Your task to perform on an android device: Open calendar and show me the third week of next month Image 0: 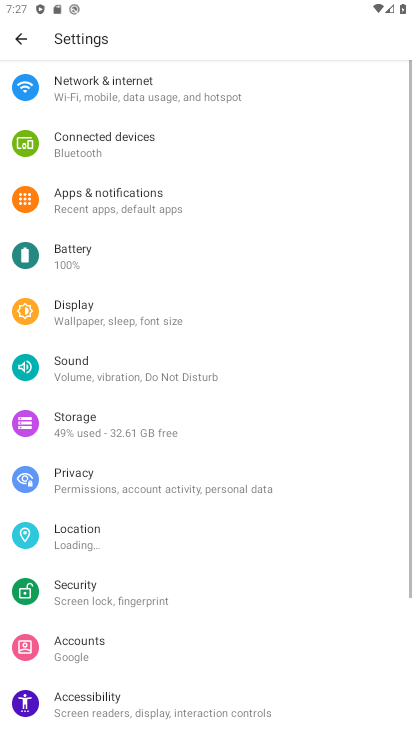
Step 0: press home button
Your task to perform on an android device: Open calendar and show me the third week of next month Image 1: 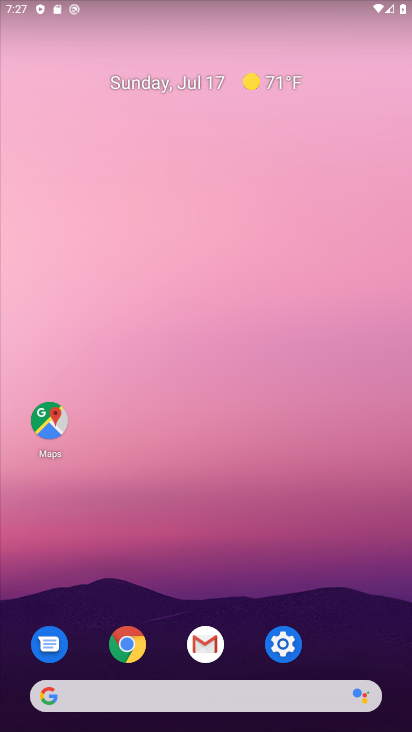
Step 1: drag from (287, 615) to (189, 172)
Your task to perform on an android device: Open calendar and show me the third week of next month Image 2: 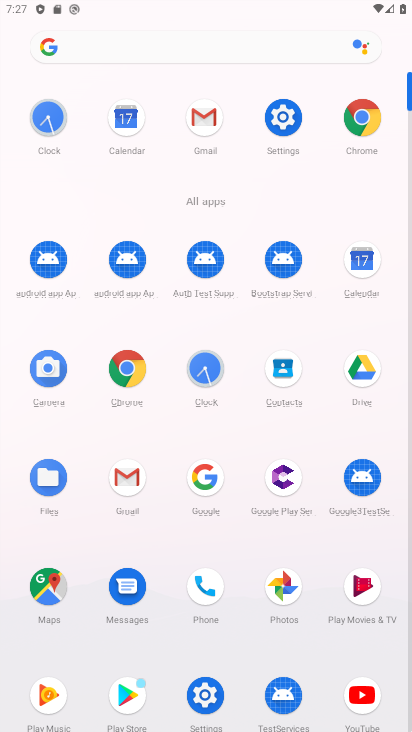
Step 2: click (273, 135)
Your task to perform on an android device: Open calendar and show me the third week of next month Image 3: 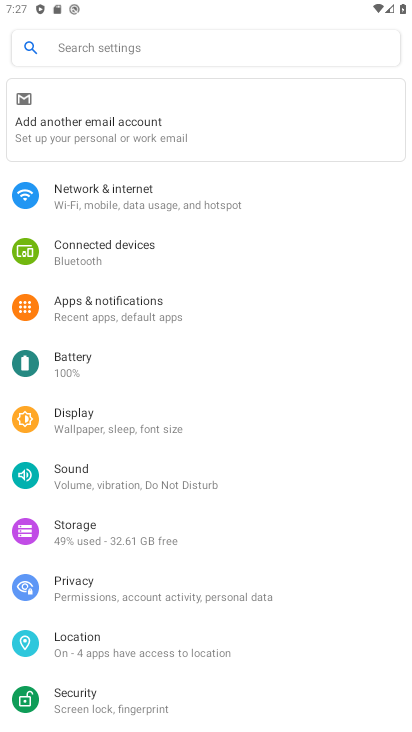
Step 3: press home button
Your task to perform on an android device: Open calendar and show me the third week of next month Image 4: 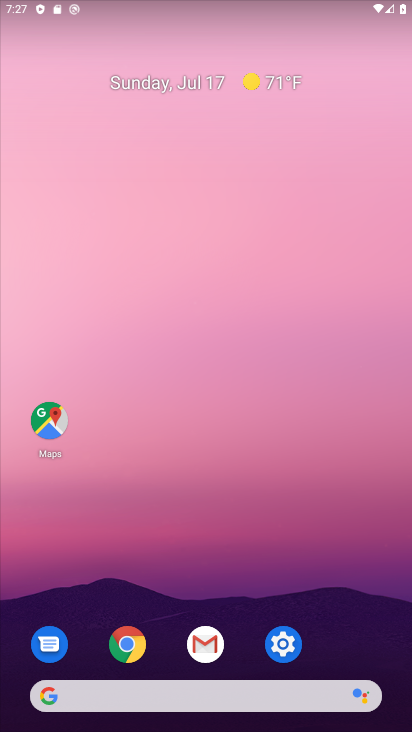
Step 4: drag from (258, 701) to (213, 49)
Your task to perform on an android device: Open calendar and show me the third week of next month Image 5: 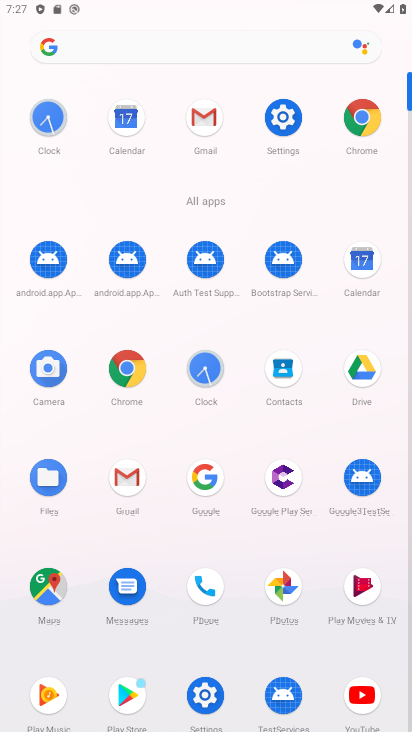
Step 5: click (361, 272)
Your task to perform on an android device: Open calendar and show me the third week of next month Image 6: 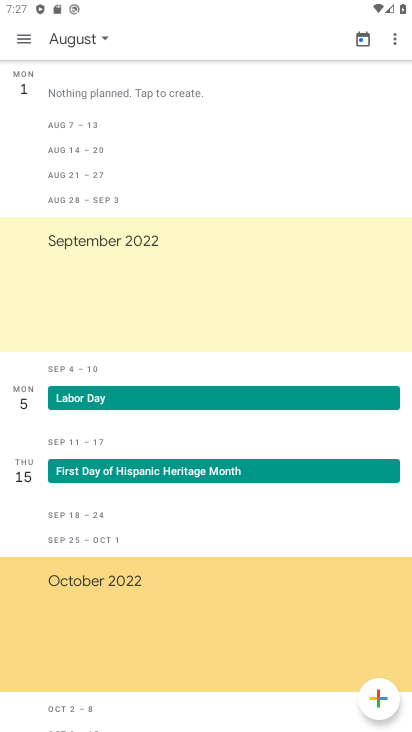
Step 6: click (23, 41)
Your task to perform on an android device: Open calendar and show me the third week of next month Image 7: 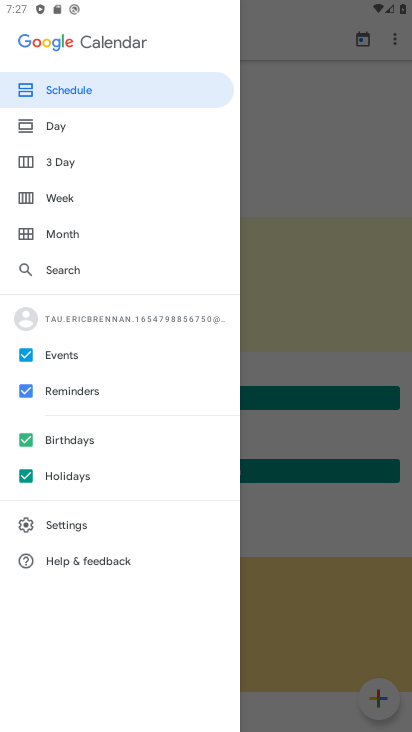
Step 7: click (69, 233)
Your task to perform on an android device: Open calendar and show me the third week of next month Image 8: 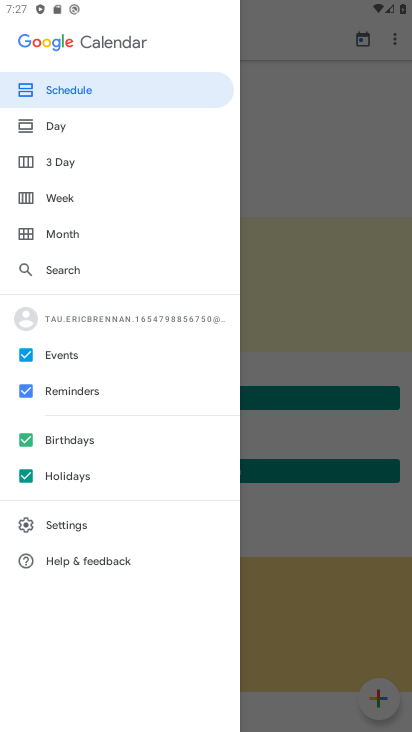
Step 8: click (71, 233)
Your task to perform on an android device: Open calendar and show me the third week of next month Image 9: 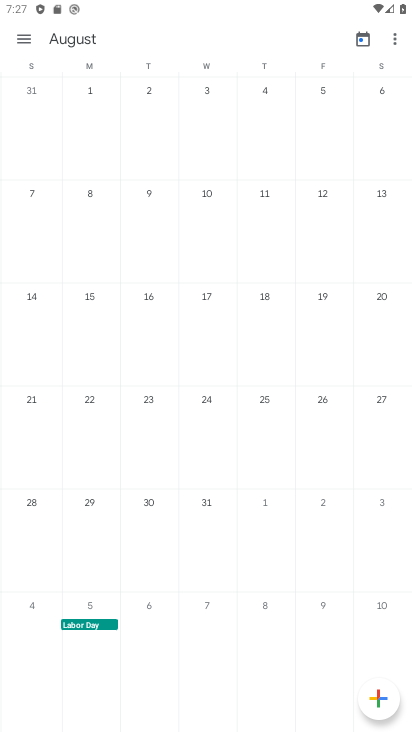
Step 9: click (91, 307)
Your task to perform on an android device: Open calendar and show me the third week of next month Image 10: 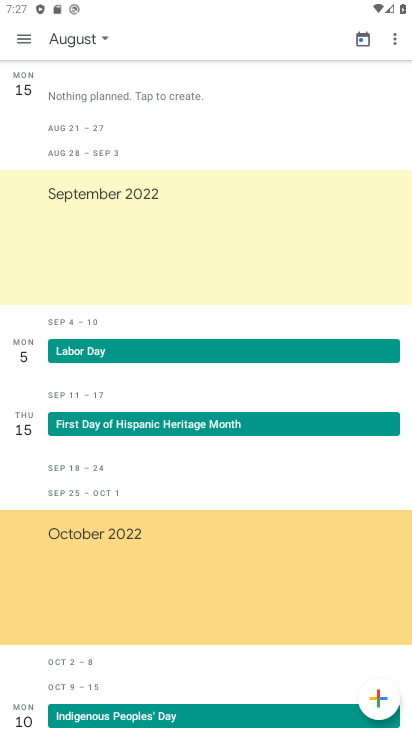
Step 10: task complete